Your task to perform on an android device: Open settings on Google Maps Image 0: 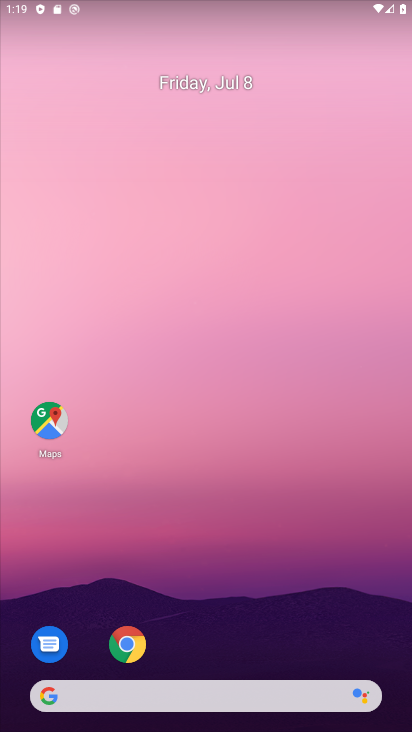
Step 0: press home button
Your task to perform on an android device: Open settings on Google Maps Image 1: 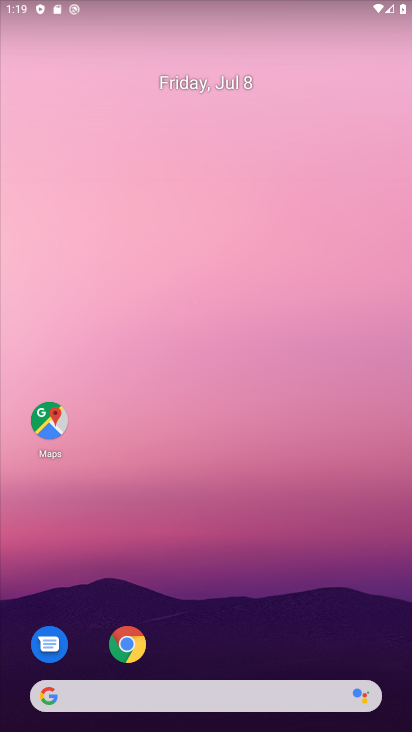
Step 1: click (49, 426)
Your task to perform on an android device: Open settings on Google Maps Image 2: 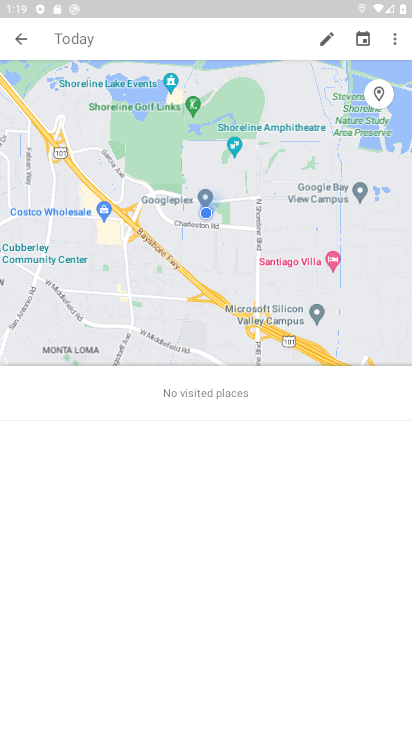
Step 2: press back button
Your task to perform on an android device: Open settings on Google Maps Image 3: 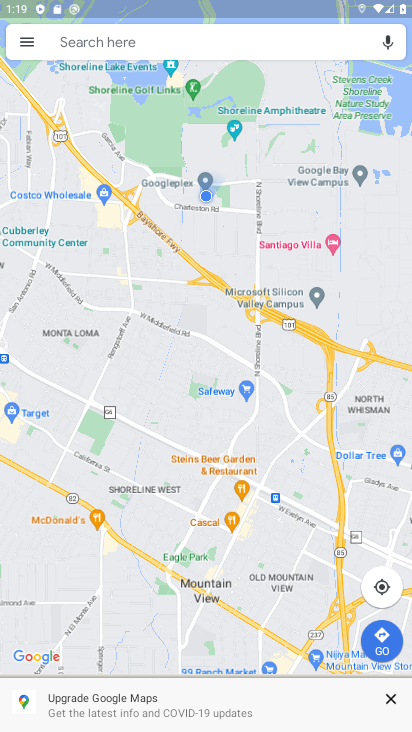
Step 3: click (28, 42)
Your task to perform on an android device: Open settings on Google Maps Image 4: 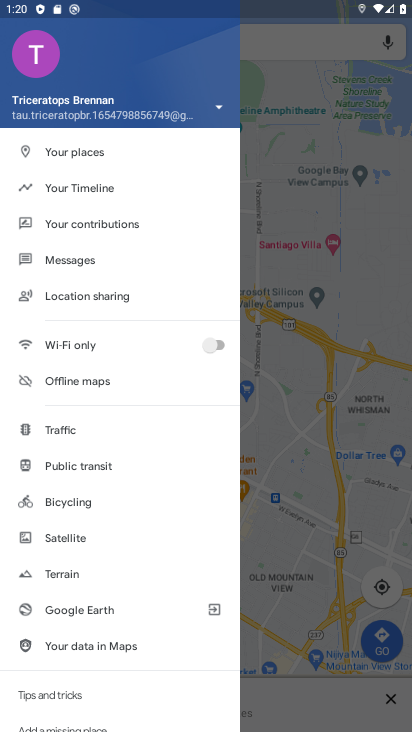
Step 4: drag from (137, 587) to (136, 290)
Your task to perform on an android device: Open settings on Google Maps Image 5: 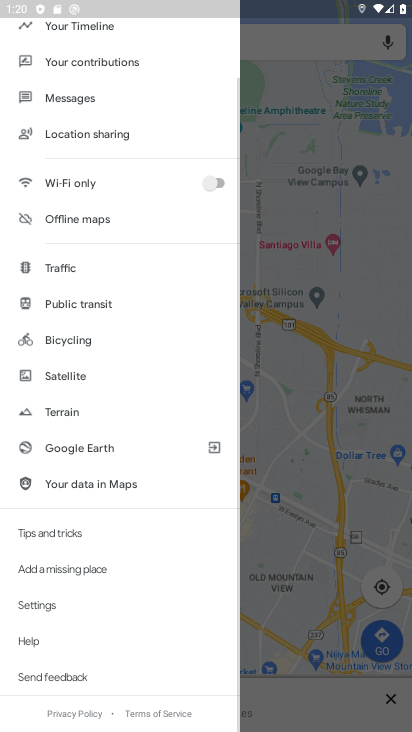
Step 5: click (42, 602)
Your task to perform on an android device: Open settings on Google Maps Image 6: 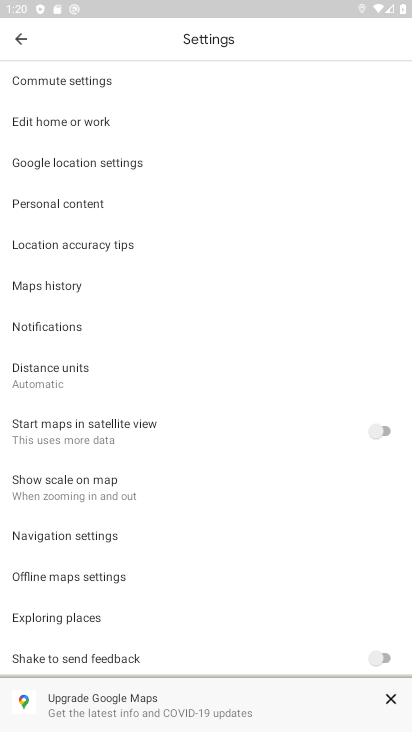
Step 6: task complete